Your task to perform on an android device: clear history in the chrome app Image 0: 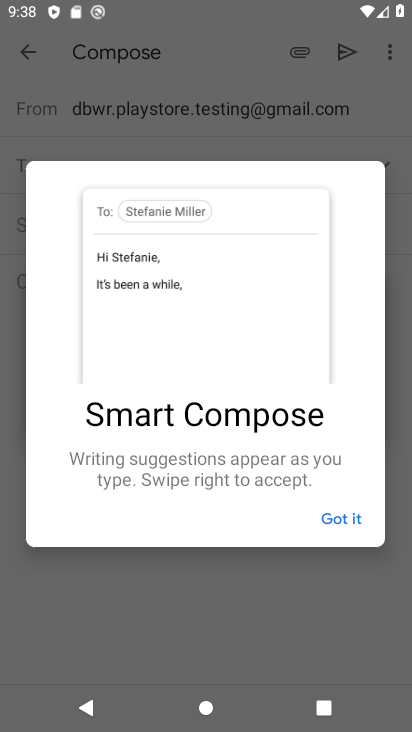
Step 0: press home button
Your task to perform on an android device: clear history in the chrome app Image 1: 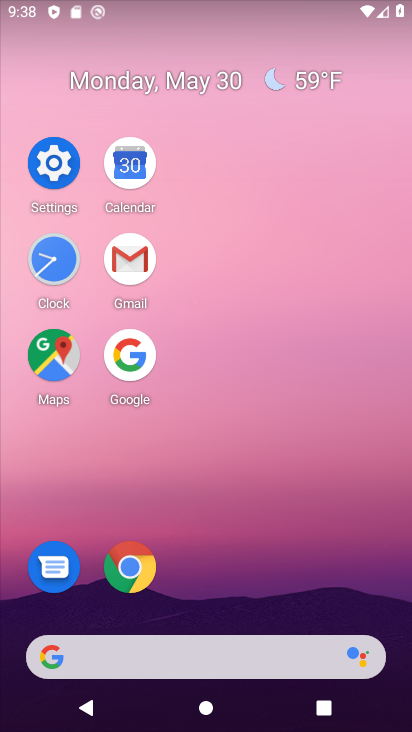
Step 1: click (132, 586)
Your task to perform on an android device: clear history in the chrome app Image 2: 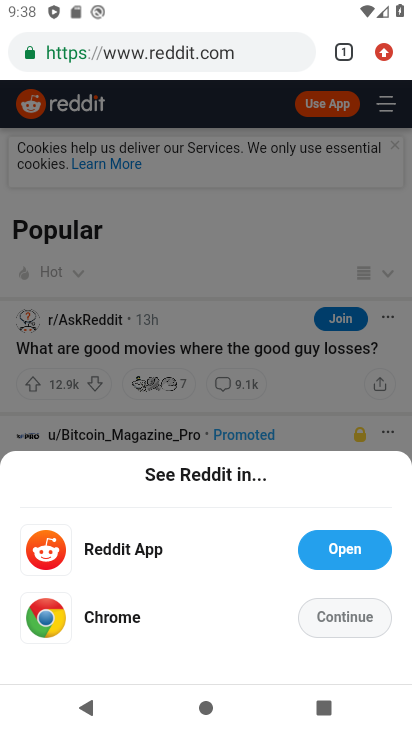
Step 2: click (388, 40)
Your task to perform on an android device: clear history in the chrome app Image 3: 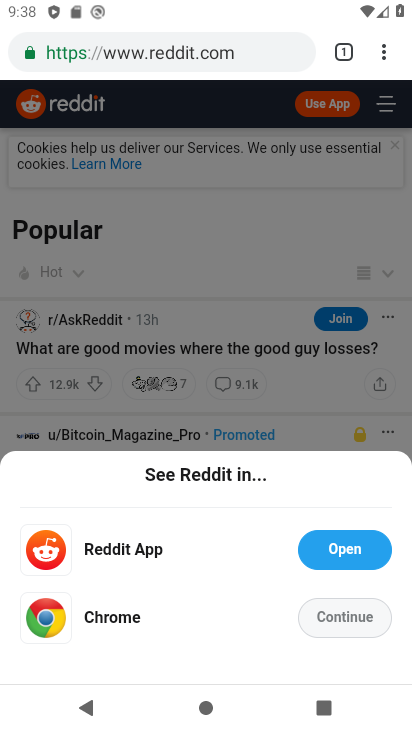
Step 3: click (375, 51)
Your task to perform on an android device: clear history in the chrome app Image 4: 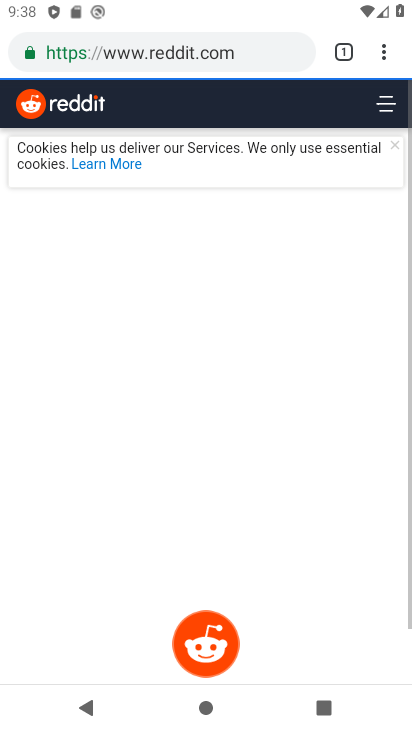
Step 4: click (384, 55)
Your task to perform on an android device: clear history in the chrome app Image 5: 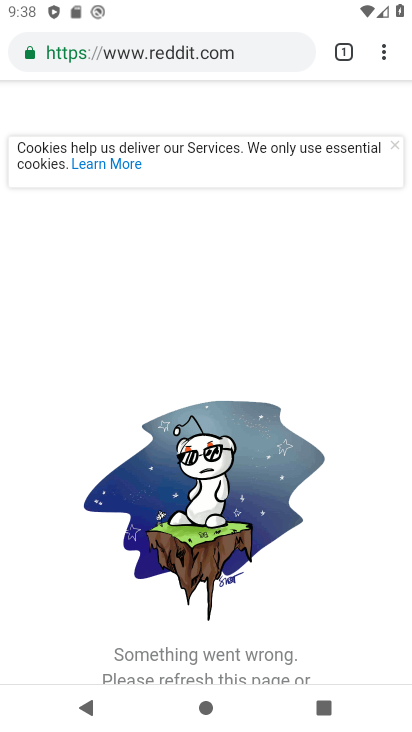
Step 5: click (374, 55)
Your task to perform on an android device: clear history in the chrome app Image 6: 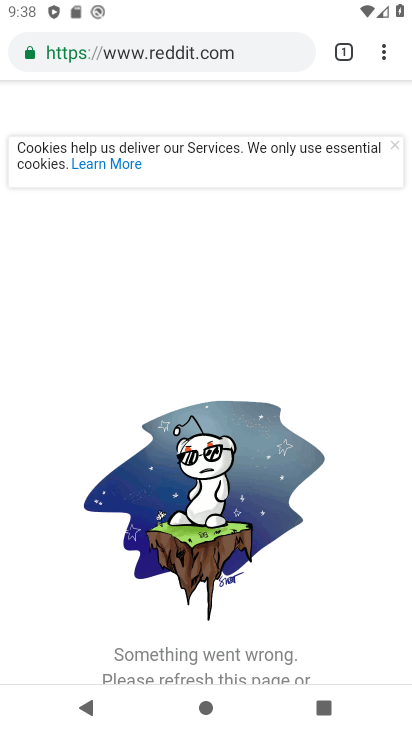
Step 6: click (374, 55)
Your task to perform on an android device: clear history in the chrome app Image 7: 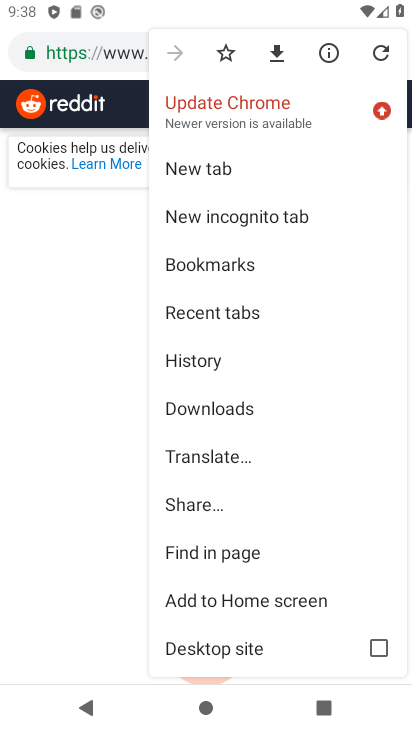
Step 7: click (188, 360)
Your task to perform on an android device: clear history in the chrome app Image 8: 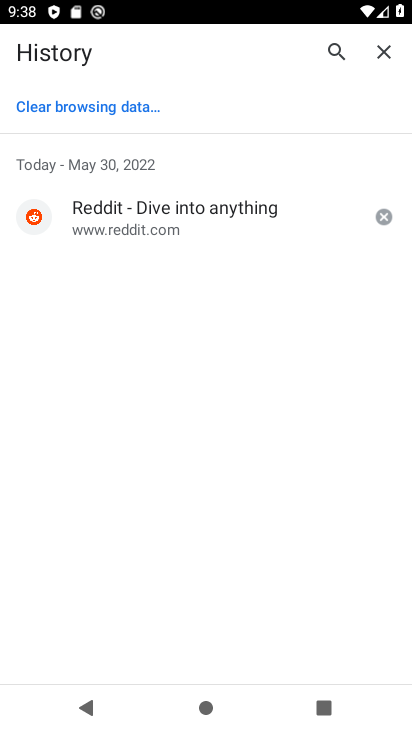
Step 8: click (93, 116)
Your task to perform on an android device: clear history in the chrome app Image 9: 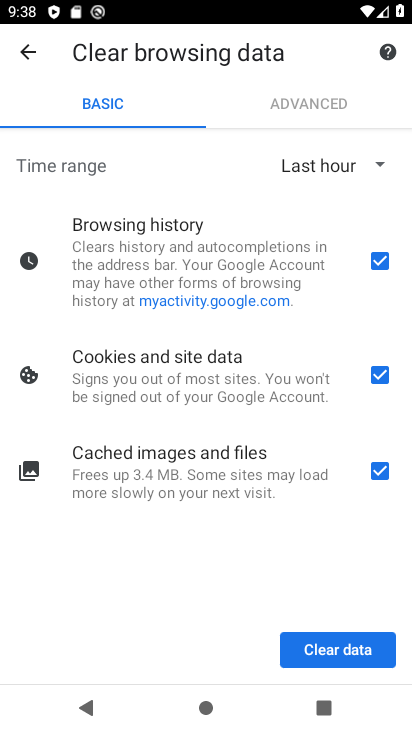
Step 9: click (370, 641)
Your task to perform on an android device: clear history in the chrome app Image 10: 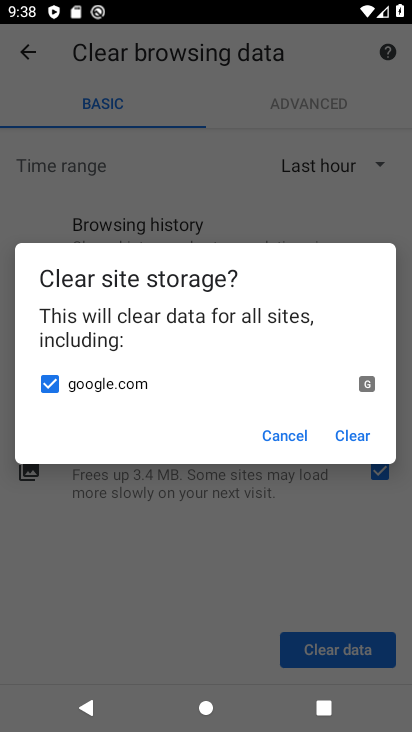
Step 10: click (353, 436)
Your task to perform on an android device: clear history in the chrome app Image 11: 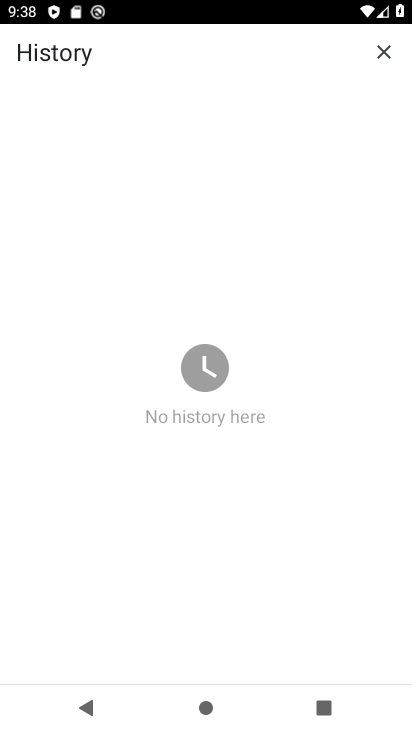
Step 11: task complete